Your task to perform on an android device: change the clock style Image 0: 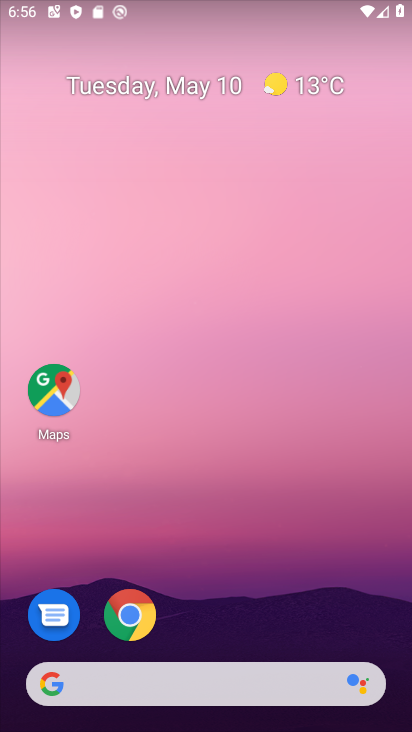
Step 0: click (351, 151)
Your task to perform on an android device: change the clock style Image 1: 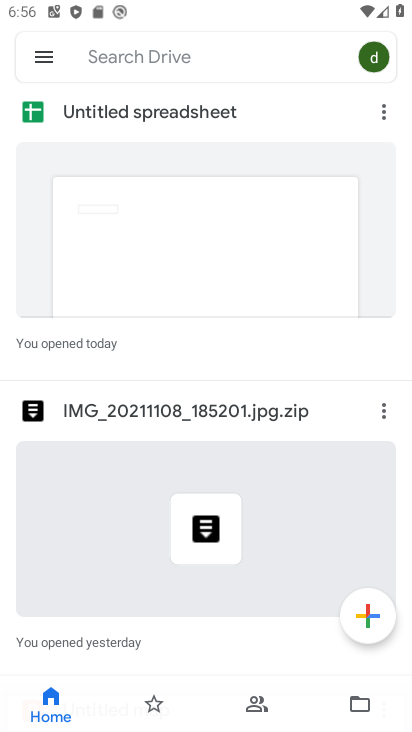
Step 1: press home button
Your task to perform on an android device: change the clock style Image 2: 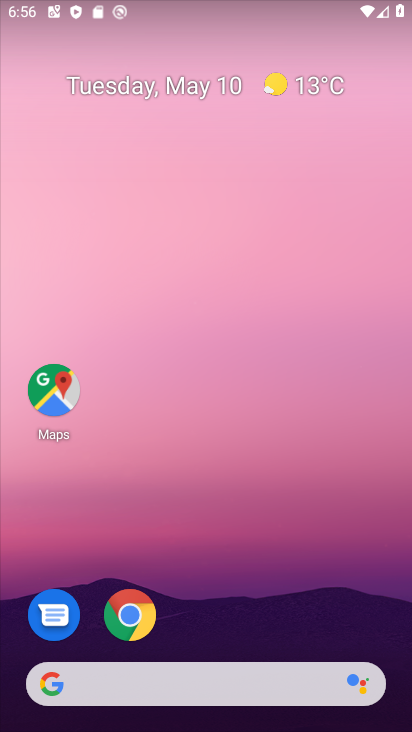
Step 2: drag from (265, 541) to (257, 157)
Your task to perform on an android device: change the clock style Image 3: 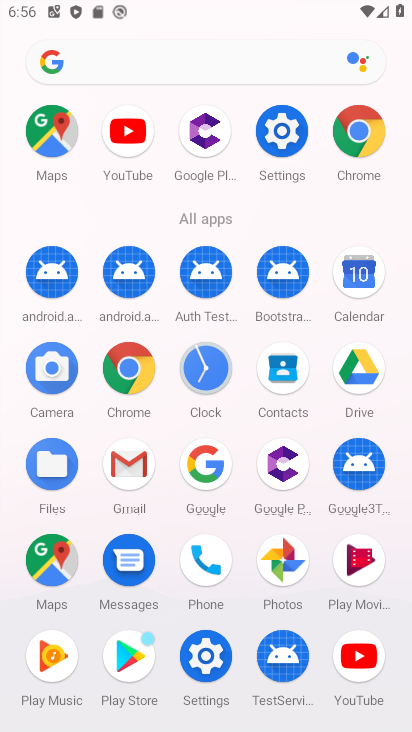
Step 3: click (203, 378)
Your task to perform on an android device: change the clock style Image 4: 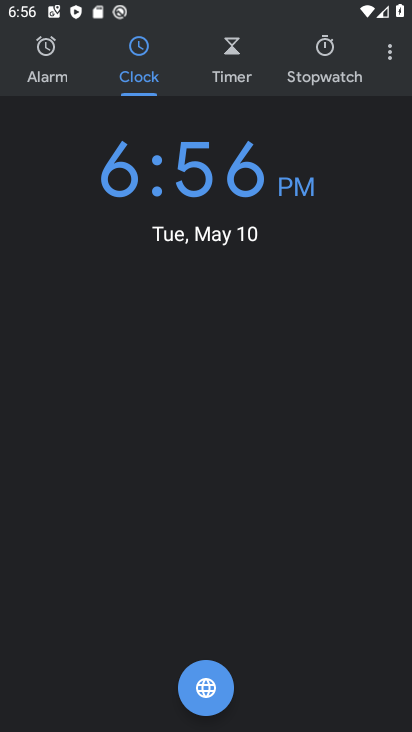
Step 4: click (380, 60)
Your task to perform on an android device: change the clock style Image 5: 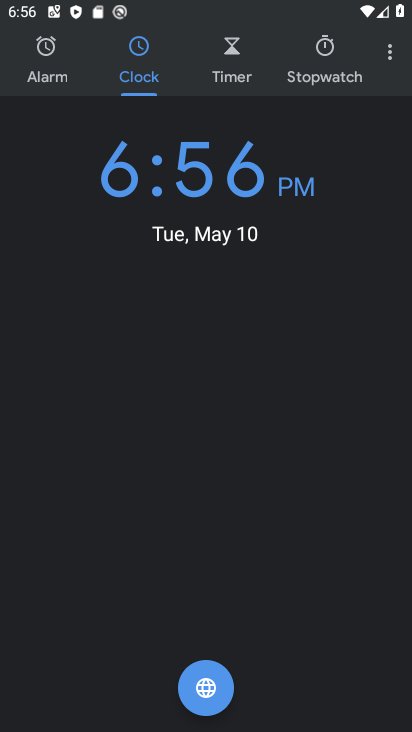
Step 5: click (404, 54)
Your task to perform on an android device: change the clock style Image 6: 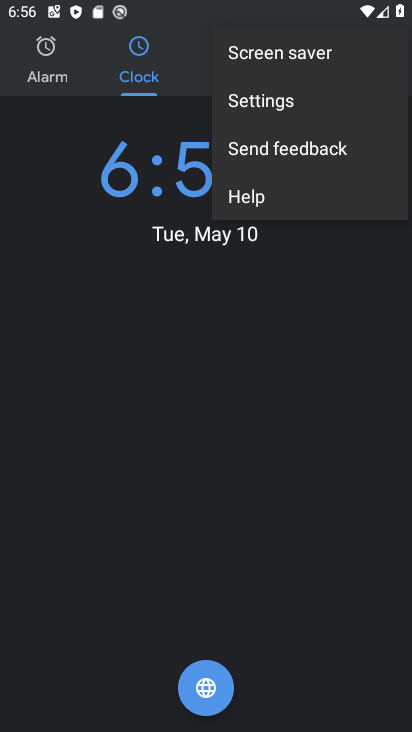
Step 6: click (261, 99)
Your task to perform on an android device: change the clock style Image 7: 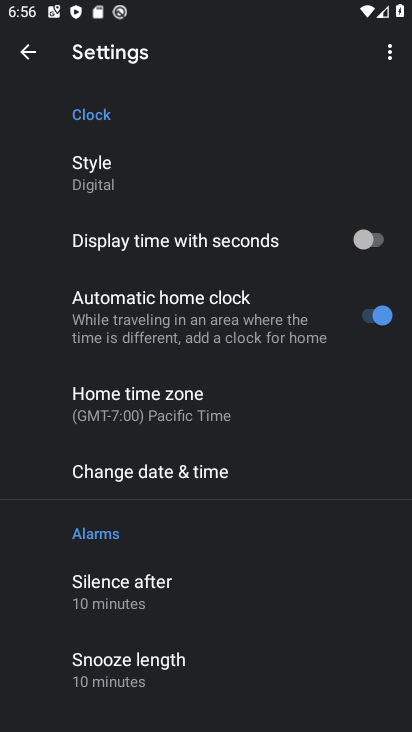
Step 7: click (97, 163)
Your task to perform on an android device: change the clock style Image 8: 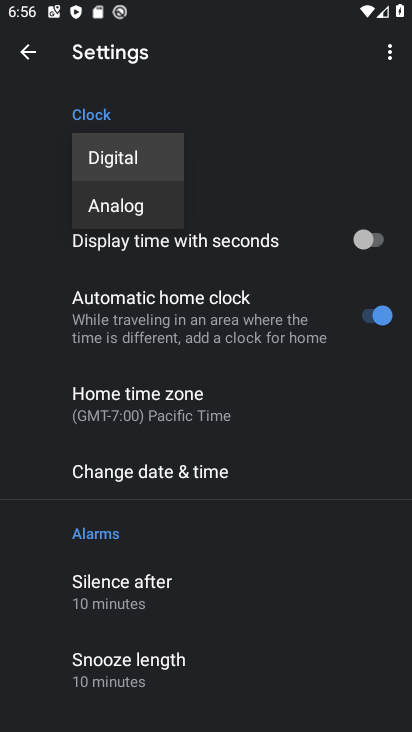
Step 8: click (120, 219)
Your task to perform on an android device: change the clock style Image 9: 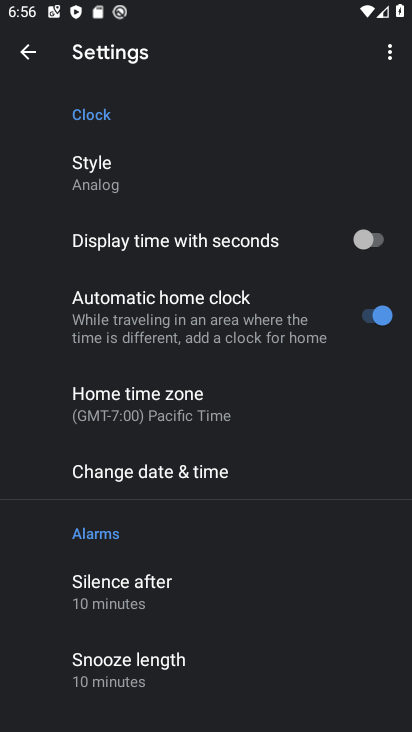
Step 9: task complete